Your task to perform on an android device: turn notification dots off Image 0: 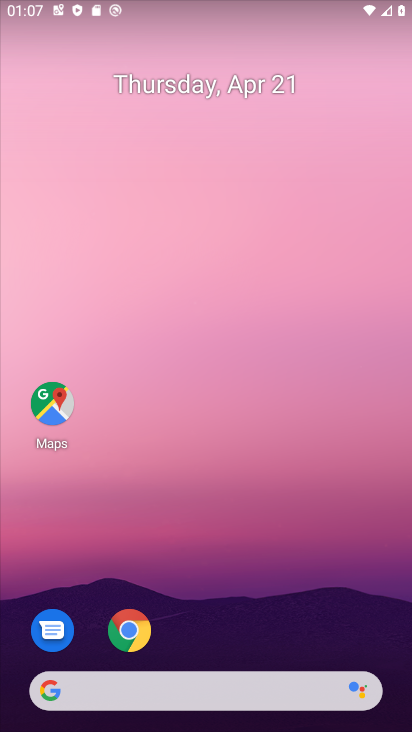
Step 0: drag from (285, 603) to (235, 119)
Your task to perform on an android device: turn notification dots off Image 1: 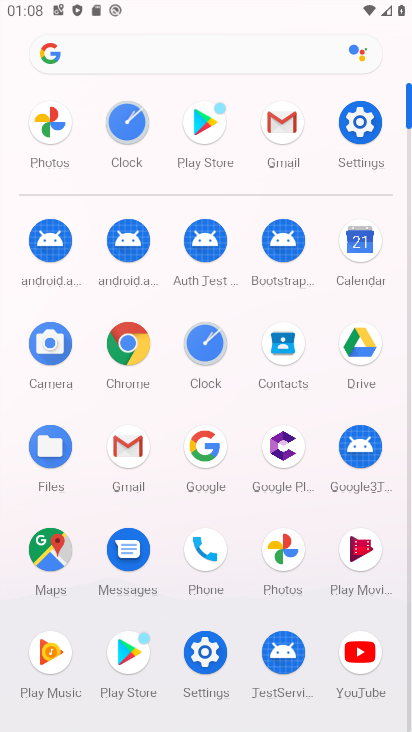
Step 1: click (361, 124)
Your task to perform on an android device: turn notification dots off Image 2: 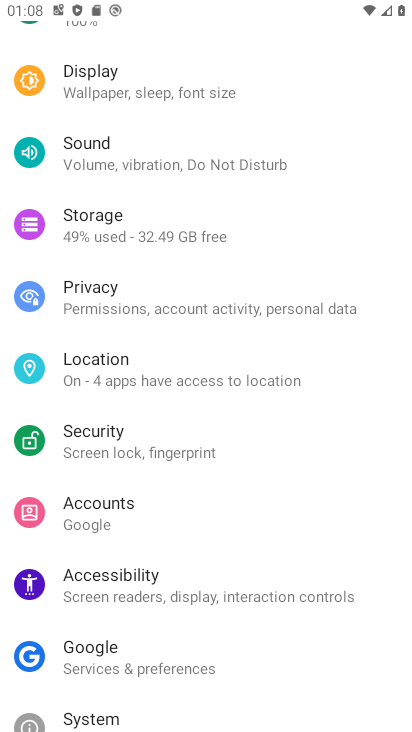
Step 2: drag from (230, 213) to (205, 529)
Your task to perform on an android device: turn notification dots off Image 3: 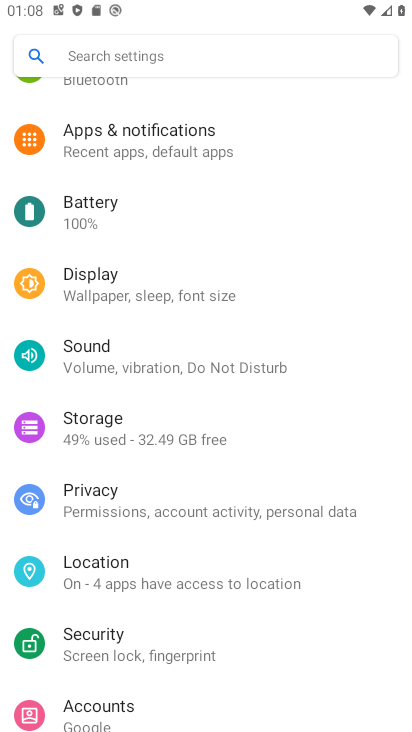
Step 3: click (216, 152)
Your task to perform on an android device: turn notification dots off Image 4: 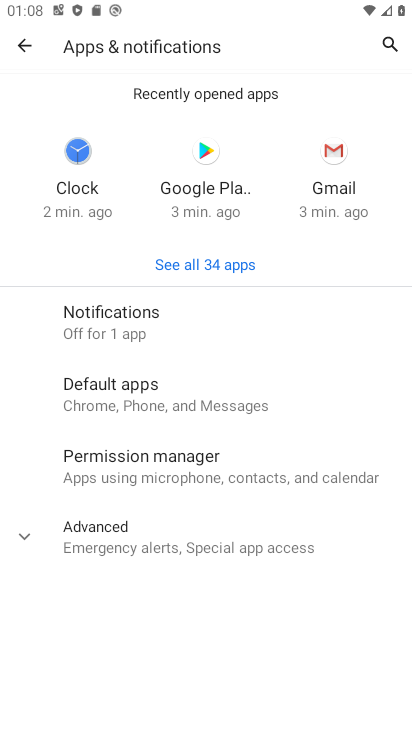
Step 4: click (184, 318)
Your task to perform on an android device: turn notification dots off Image 5: 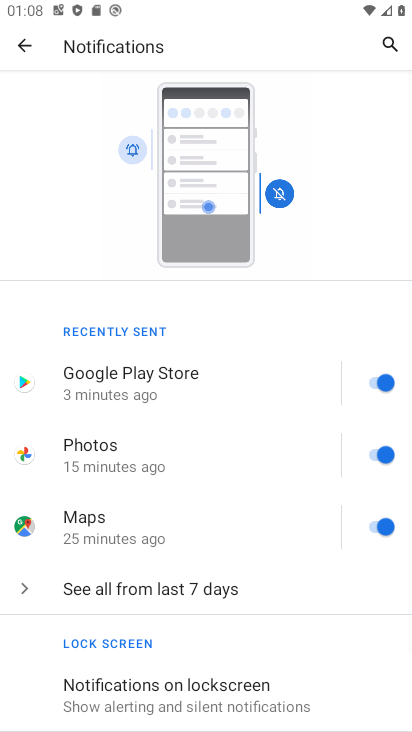
Step 5: drag from (164, 538) to (177, 278)
Your task to perform on an android device: turn notification dots off Image 6: 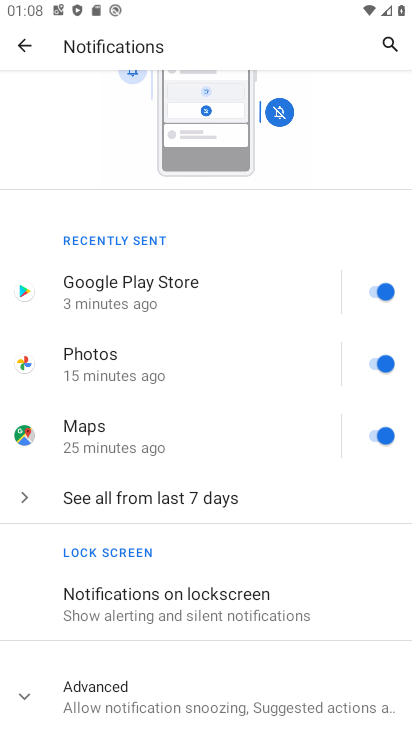
Step 6: click (179, 684)
Your task to perform on an android device: turn notification dots off Image 7: 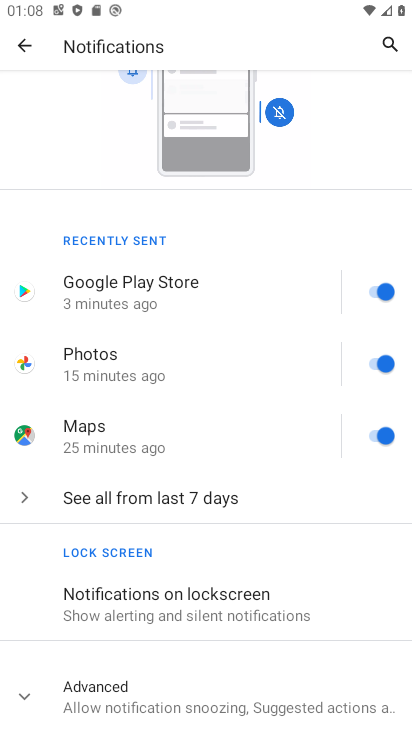
Step 7: drag from (179, 684) to (94, 314)
Your task to perform on an android device: turn notification dots off Image 8: 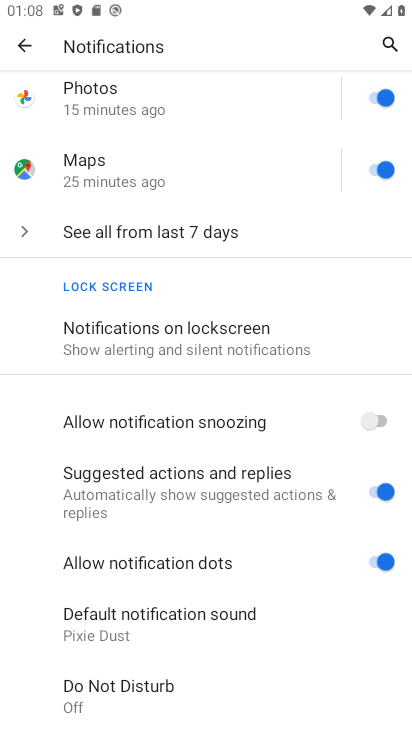
Step 8: click (342, 574)
Your task to perform on an android device: turn notification dots off Image 9: 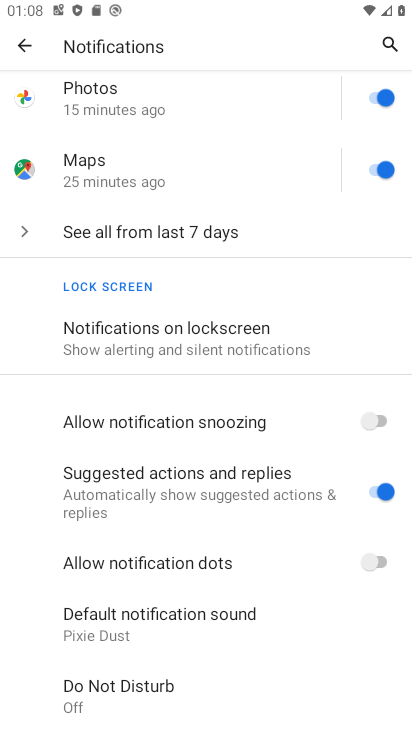
Step 9: task complete